Your task to perform on an android device: Open location settings Image 0: 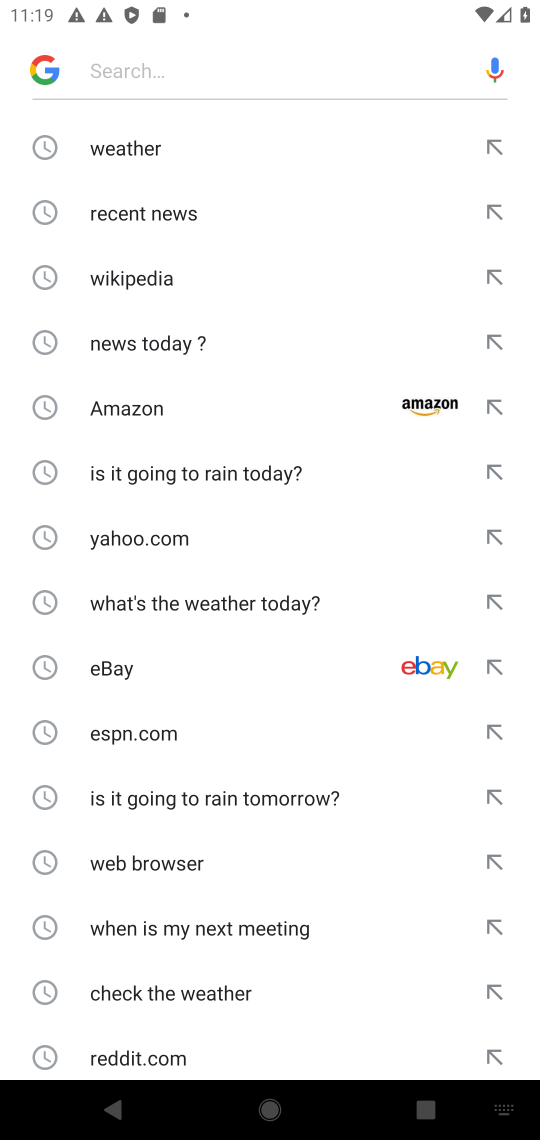
Step 0: press home button
Your task to perform on an android device: Open location settings Image 1: 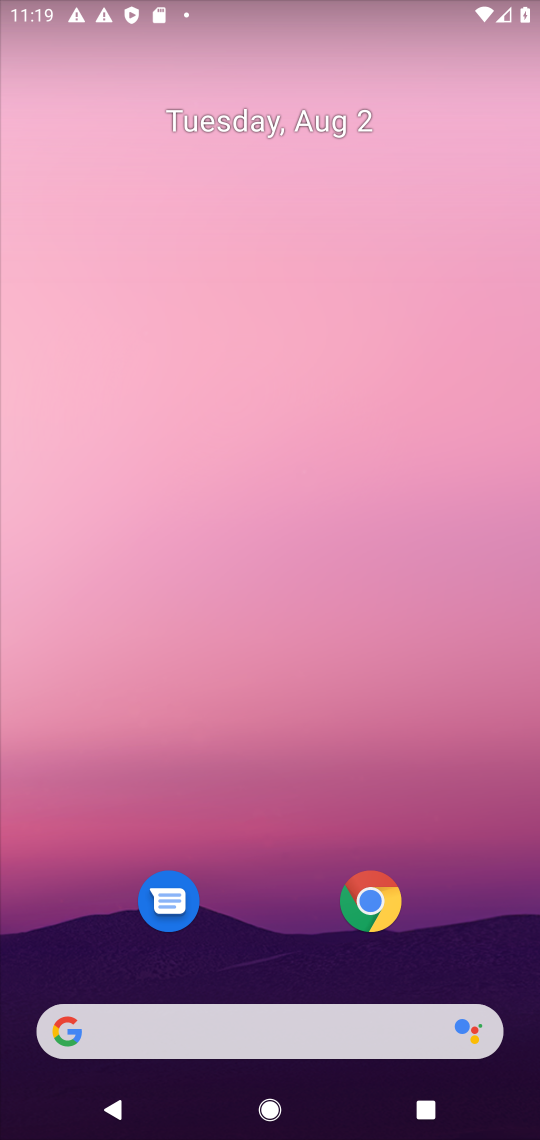
Step 1: drag from (502, 1094) to (330, 403)
Your task to perform on an android device: Open location settings Image 2: 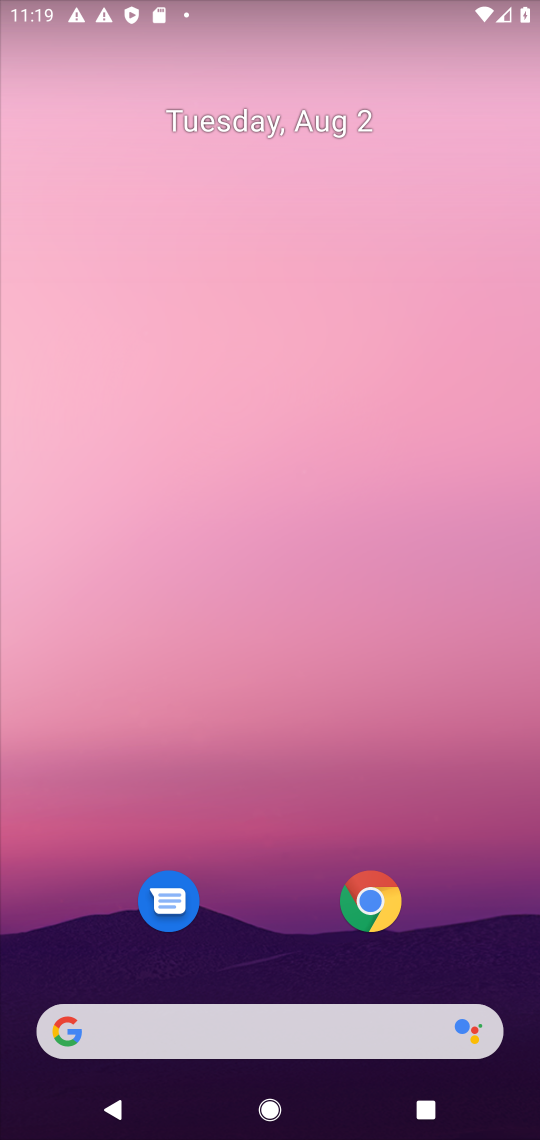
Step 2: drag from (506, 1018) to (440, 321)
Your task to perform on an android device: Open location settings Image 3: 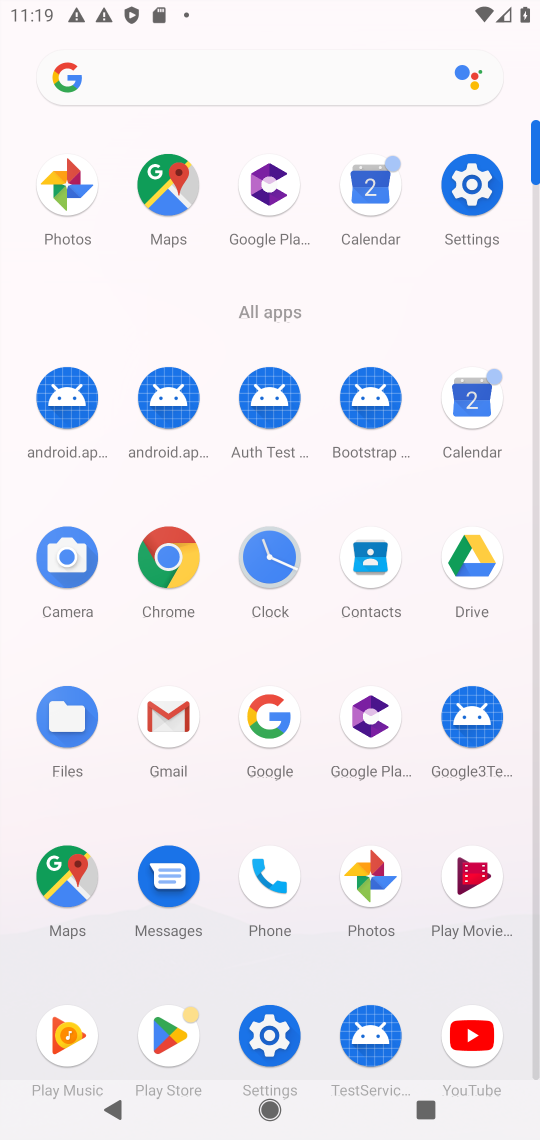
Step 3: click (278, 1039)
Your task to perform on an android device: Open location settings Image 4: 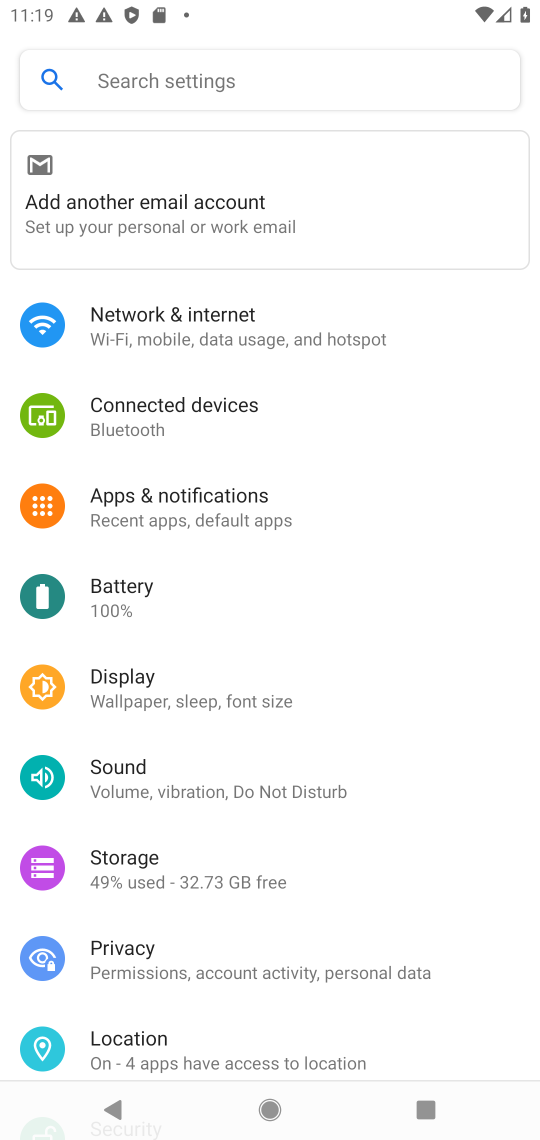
Step 4: click (146, 1040)
Your task to perform on an android device: Open location settings Image 5: 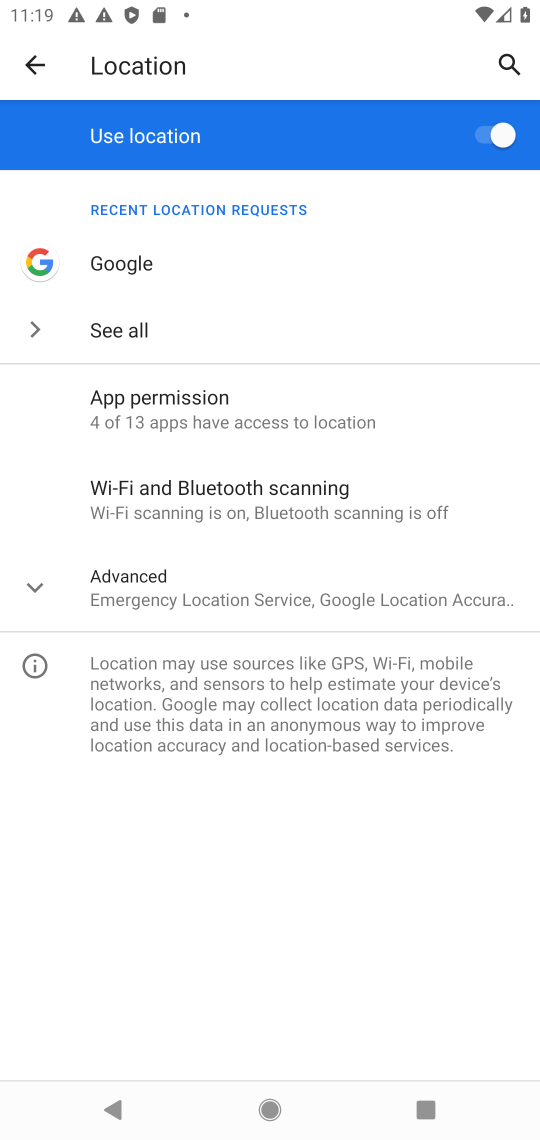
Step 5: click (39, 588)
Your task to perform on an android device: Open location settings Image 6: 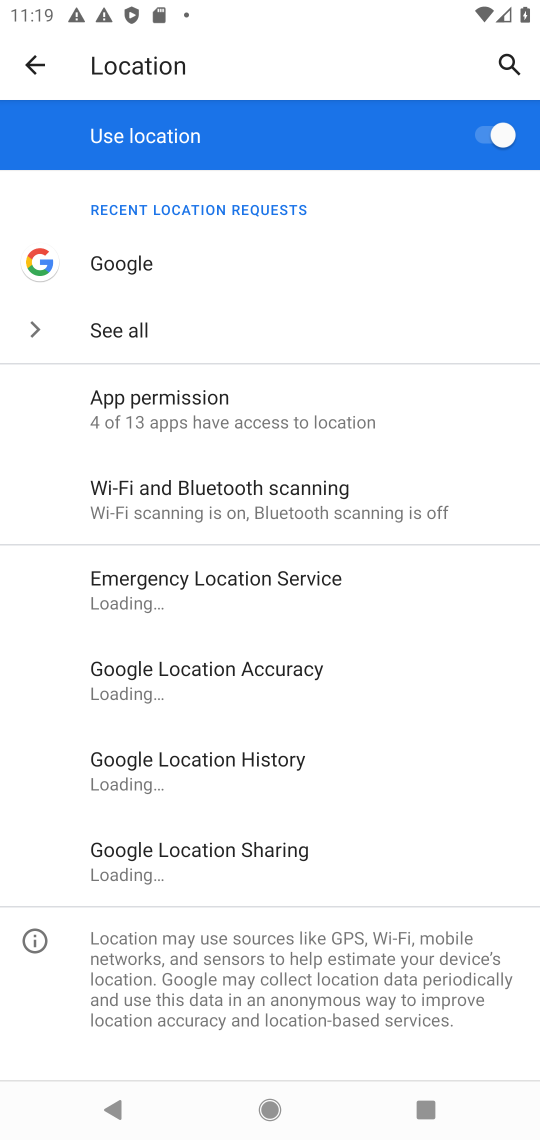
Step 6: task complete